Your task to perform on an android device: Search for Mexican restaurants on Maps Image 0: 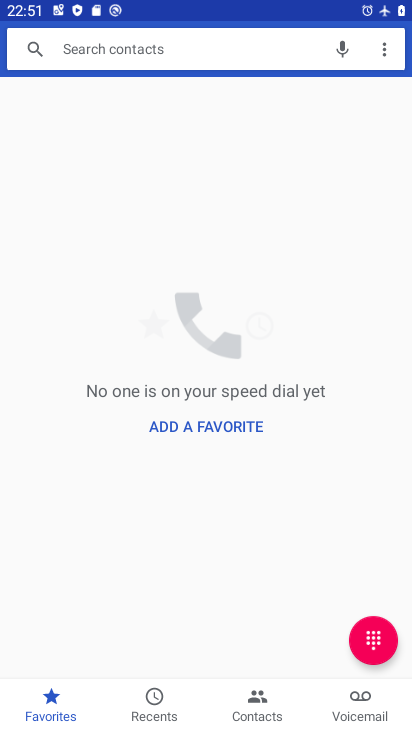
Step 0: press home button
Your task to perform on an android device: Search for Mexican restaurants on Maps Image 1: 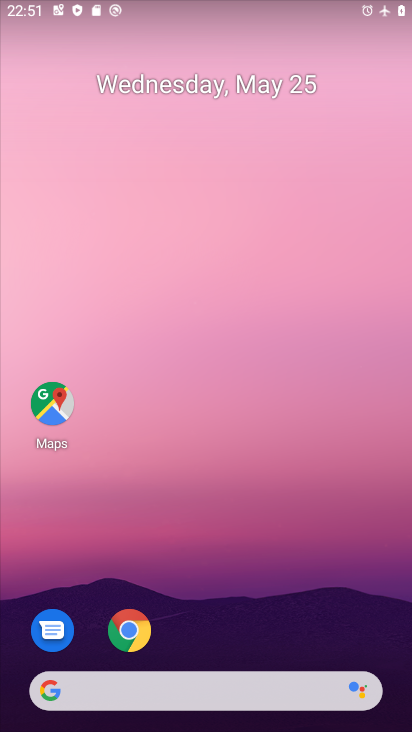
Step 1: click (57, 402)
Your task to perform on an android device: Search for Mexican restaurants on Maps Image 2: 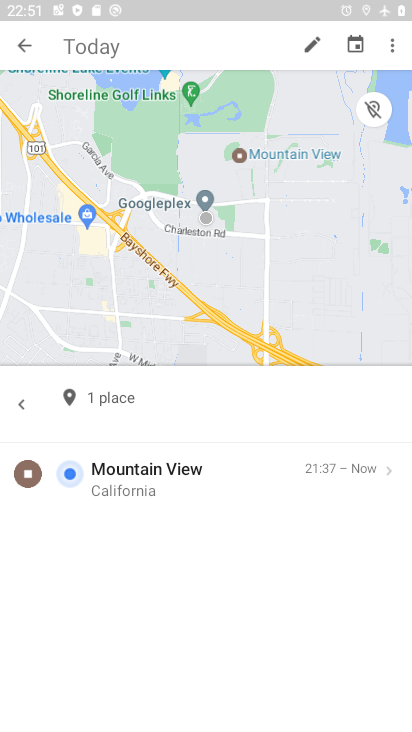
Step 2: click (27, 48)
Your task to perform on an android device: Search for Mexican restaurants on Maps Image 3: 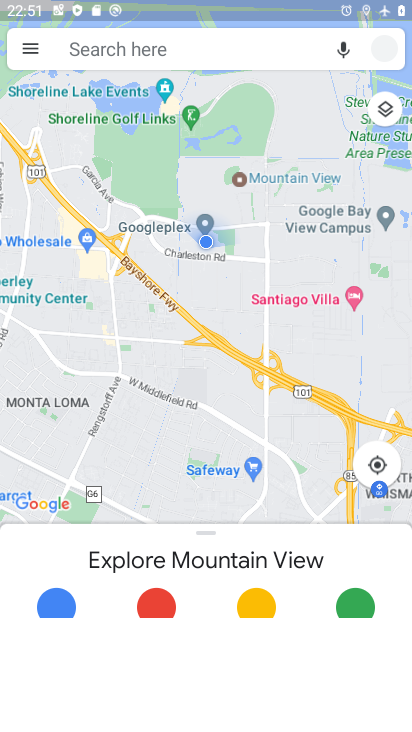
Step 3: click (179, 53)
Your task to perform on an android device: Search for Mexican restaurants on Maps Image 4: 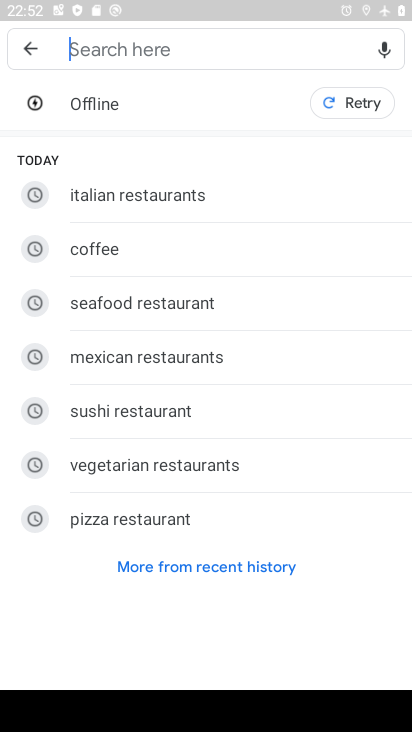
Step 4: click (197, 350)
Your task to perform on an android device: Search for Mexican restaurants on Maps Image 5: 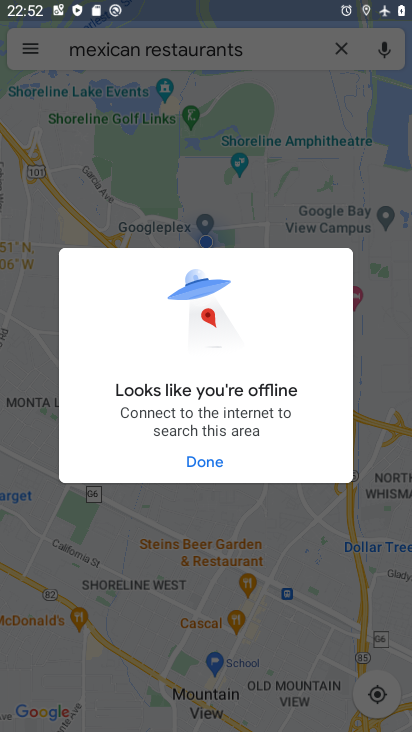
Step 5: task complete